Your task to perform on an android device: toggle notifications settings in the gmail app Image 0: 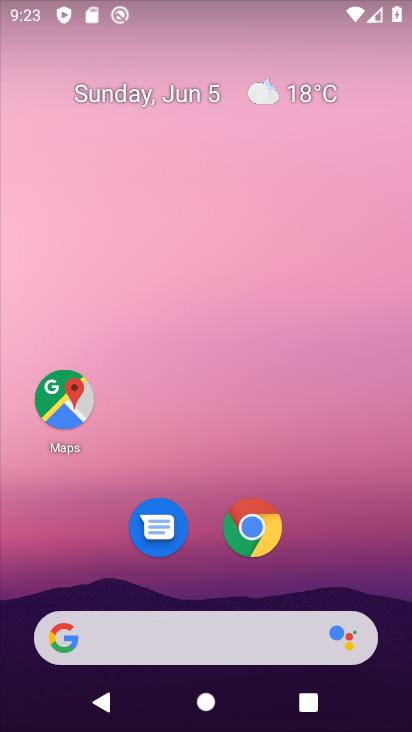
Step 0: task complete